Your task to perform on an android device: toggle airplane mode Image 0: 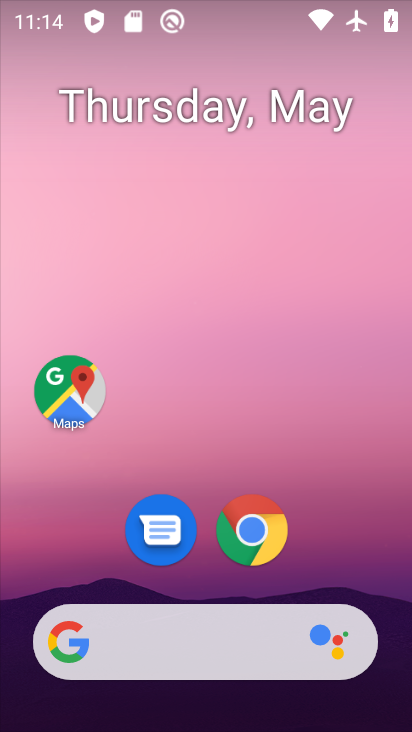
Step 0: drag from (300, 564) to (342, 36)
Your task to perform on an android device: toggle airplane mode Image 1: 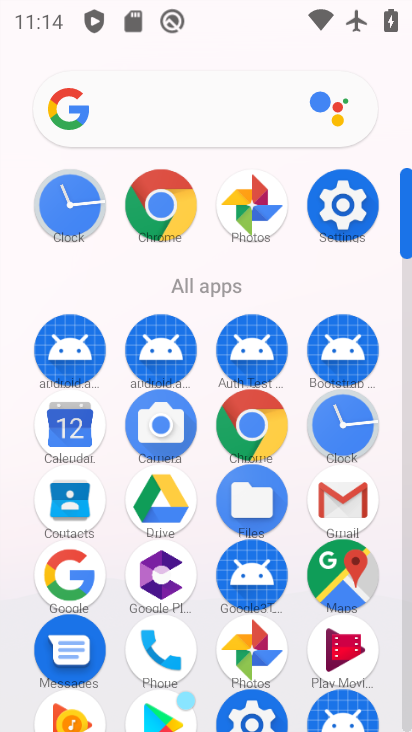
Step 1: click (348, 220)
Your task to perform on an android device: toggle airplane mode Image 2: 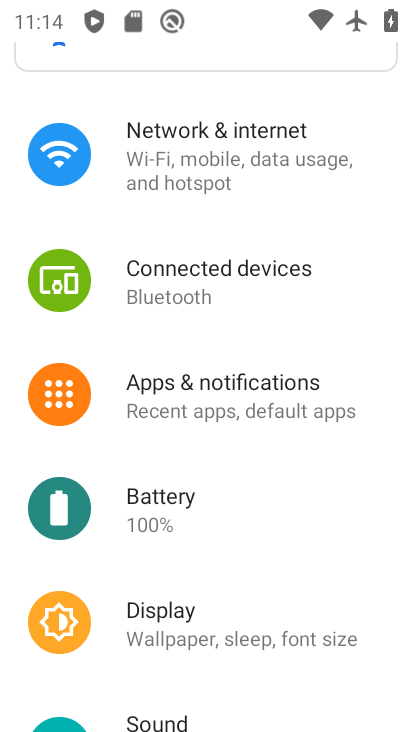
Step 2: drag from (296, 218) to (232, 592)
Your task to perform on an android device: toggle airplane mode Image 3: 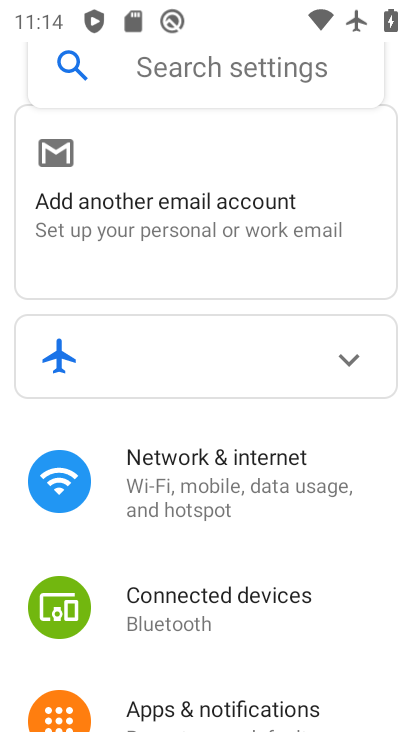
Step 3: click (192, 492)
Your task to perform on an android device: toggle airplane mode Image 4: 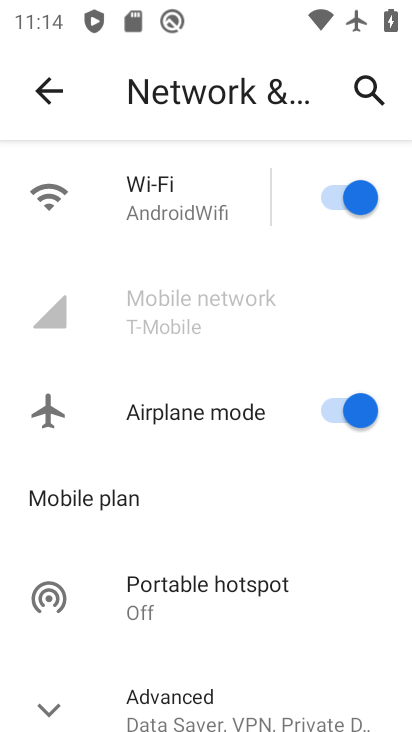
Step 4: click (360, 419)
Your task to perform on an android device: toggle airplane mode Image 5: 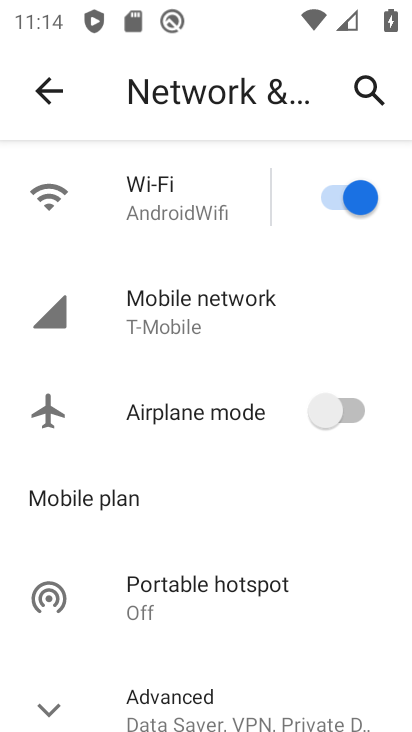
Step 5: task complete